Your task to perform on an android device: Clear all items from cart on walmart.com. Image 0: 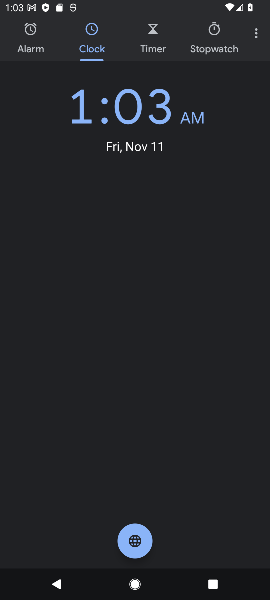
Step 0: press home button
Your task to perform on an android device: Clear all items from cart on walmart.com. Image 1: 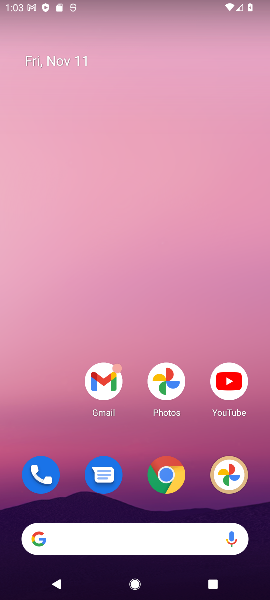
Step 1: drag from (130, 519) to (182, 150)
Your task to perform on an android device: Clear all items from cart on walmart.com. Image 2: 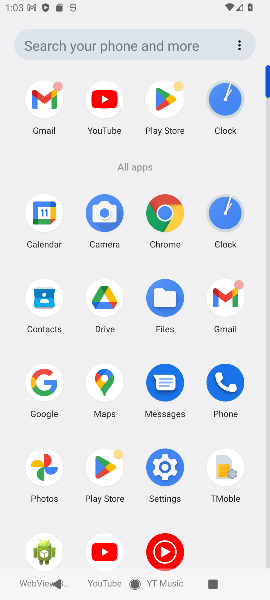
Step 2: click (156, 226)
Your task to perform on an android device: Clear all items from cart on walmart.com. Image 3: 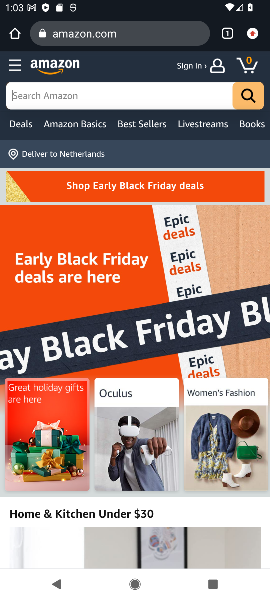
Step 3: click (83, 41)
Your task to perform on an android device: Clear all items from cart on walmart.com. Image 4: 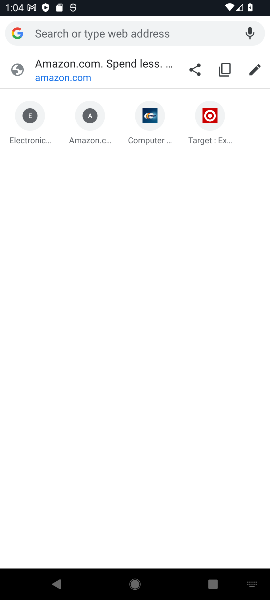
Step 4: type "walmart.com."
Your task to perform on an android device: Clear all items from cart on walmart.com. Image 5: 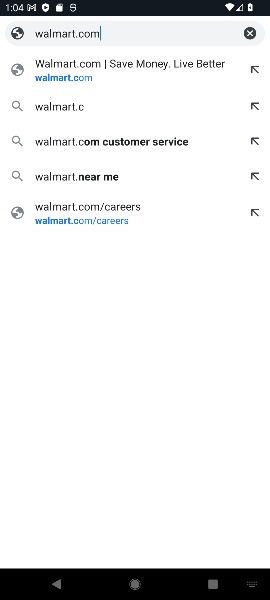
Step 5: press enter
Your task to perform on an android device: Clear all items from cart on walmart.com. Image 6: 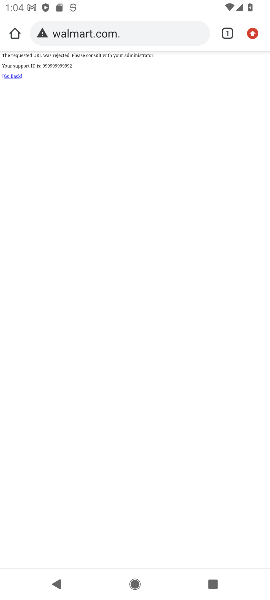
Step 6: click (129, 32)
Your task to perform on an android device: Clear all items from cart on walmart.com. Image 7: 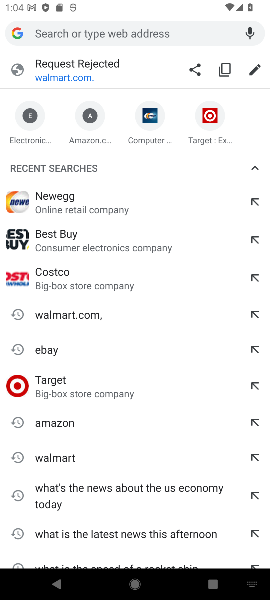
Step 7: type "walmart.com."
Your task to perform on an android device: Clear all items from cart on walmart.com. Image 8: 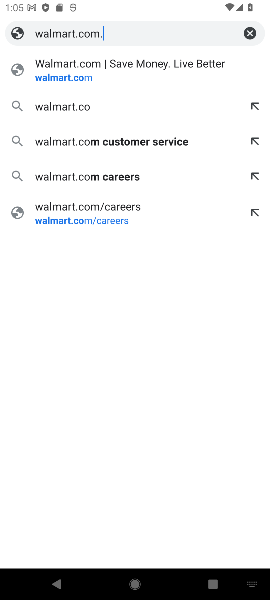
Step 8: press enter
Your task to perform on an android device: Clear all items from cart on walmart.com. Image 9: 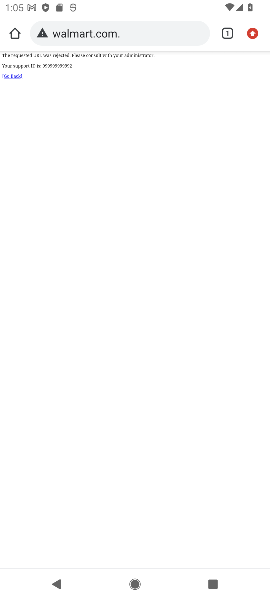
Step 9: task complete